Your task to perform on an android device: Open network settings Image 0: 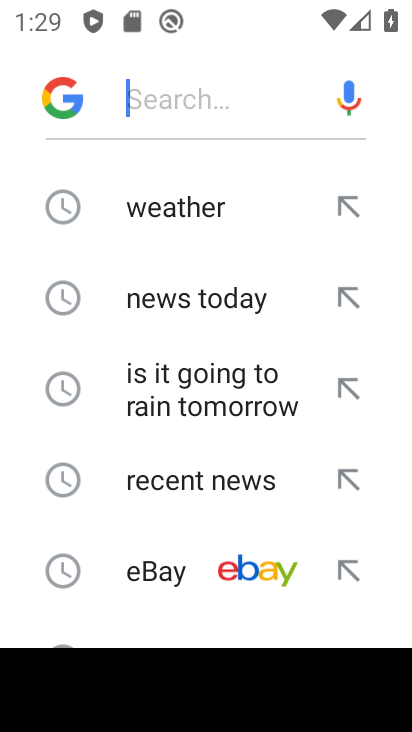
Step 0: press home button
Your task to perform on an android device: Open network settings Image 1: 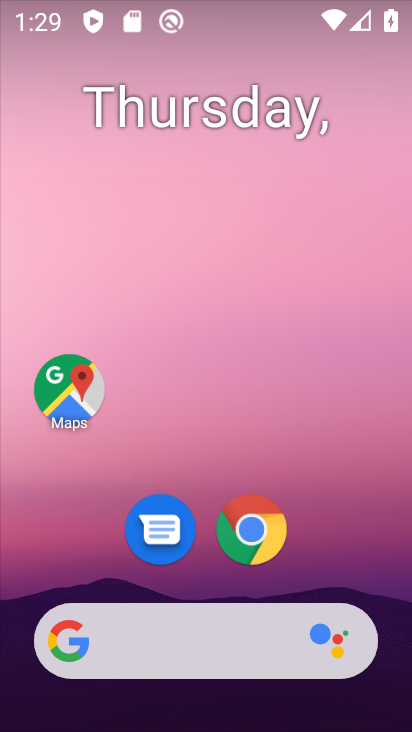
Step 1: drag from (205, 716) to (221, 132)
Your task to perform on an android device: Open network settings Image 2: 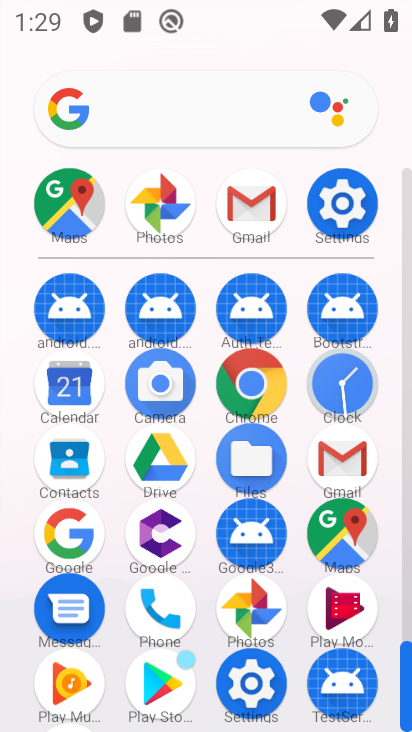
Step 2: click (336, 205)
Your task to perform on an android device: Open network settings Image 3: 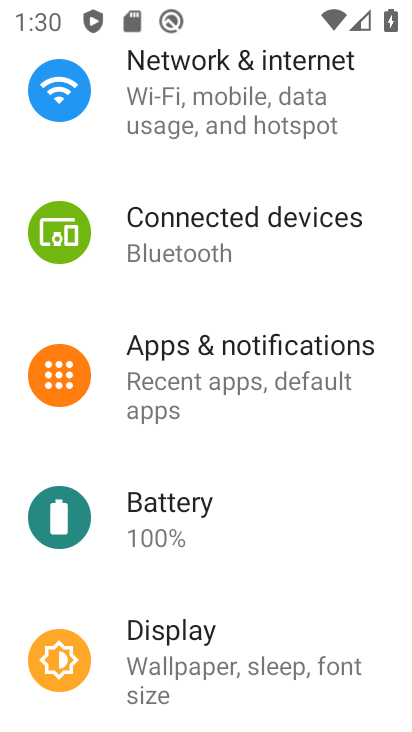
Step 3: click (215, 121)
Your task to perform on an android device: Open network settings Image 4: 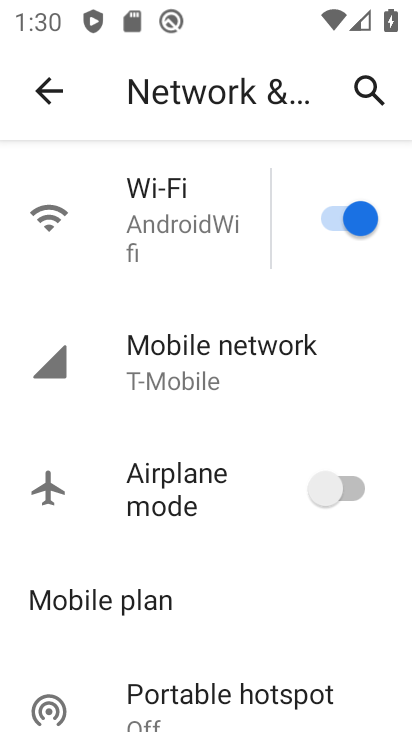
Step 4: task complete